Your task to perform on an android device: Go to network settings Image 0: 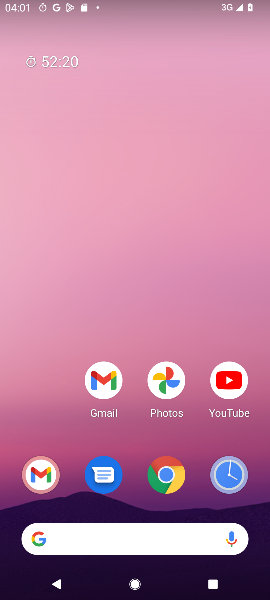
Step 0: press home button
Your task to perform on an android device: Go to network settings Image 1: 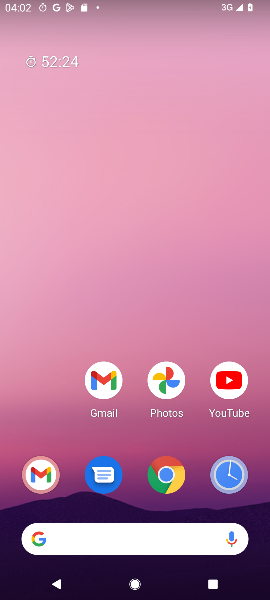
Step 1: drag from (65, 446) to (54, 198)
Your task to perform on an android device: Go to network settings Image 2: 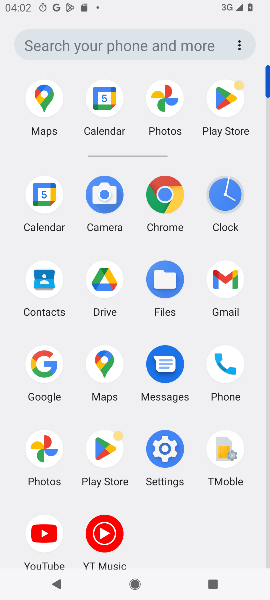
Step 2: click (166, 450)
Your task to perform on an android device: Go to network settings Image 3: 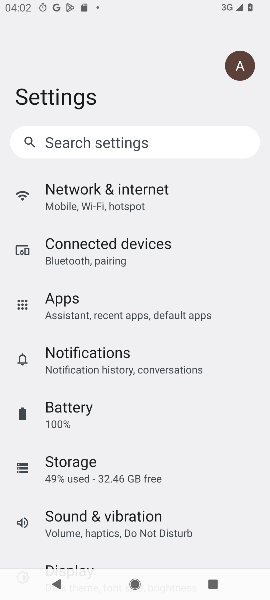
Step 3: drag from (210, 482) to (212, 391)
Your task to perform on an android device: Go to network settings Image 4: 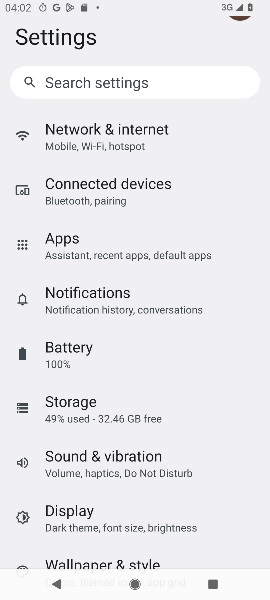
Step 4: drag from (227, 462) to (232, 351)
Your task to perform on an android device: Go to network settings Image 5: 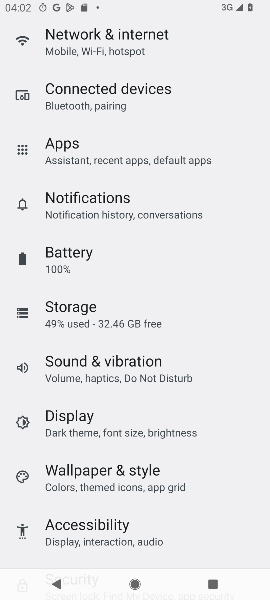
Step 5: drag from (232, 484) to (235, 383)
Your task to perform on an android device: Go to network settings Image 6: 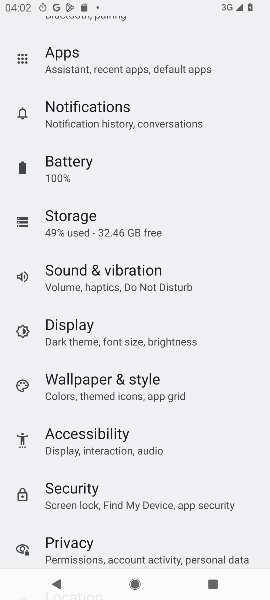
Step 6: drag from (218, 473) to (219, 363)
Your task to perform on an android device: Go to network settings Image 7: 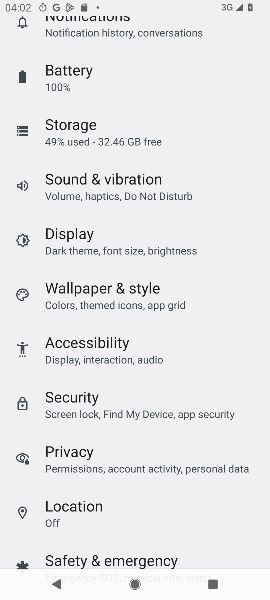
Step 7: drag from (216, 503) to (227, 377)
Your task to perform on an android device: Go to network settings Image 8: 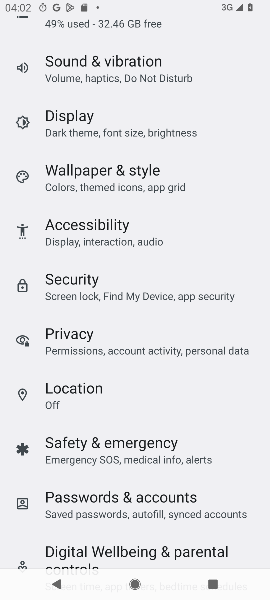
Step 8: drag from (235, 535) to (234, 402)
Your task to perform on an android device: Go to network settings Image 9: 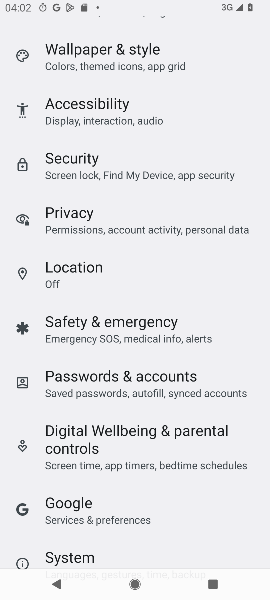
Step 9: drag from (227, 506) to (227, 352)
Your task to perform on an android device: Go to network settings Image 10: 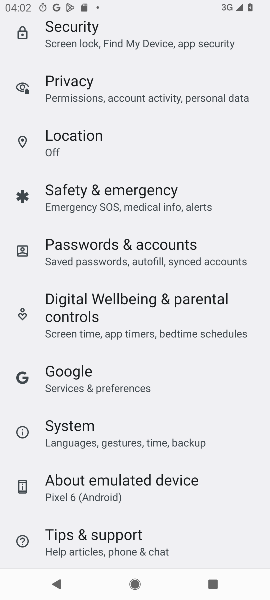
Step 10: drag from (231, 515) to (231, 382)
Your task to perform on an android device: Go to network settings Image 11: 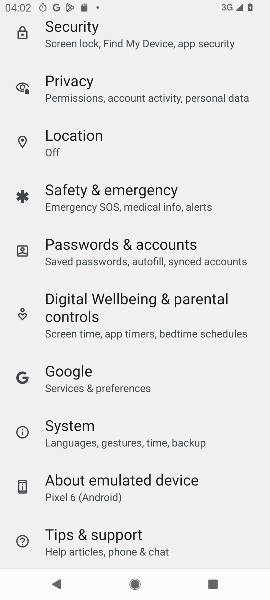
Step 11: drag from (238, 350) to (241, 449)
Your task to perform on an android device: Go to network settings Image 12: 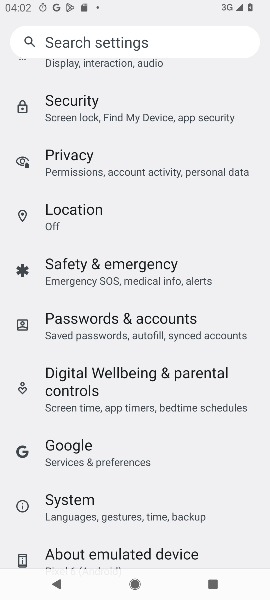
Step 12: drag from (244, 265) to (244, 401)
Your task to perform on an android device: Go to network settings Image 13: 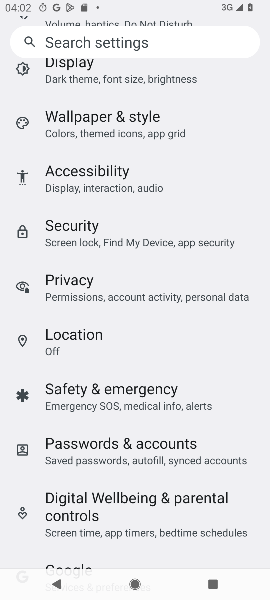
Step 13: drag from (235, 207) to (234, 335)
Your task to perform on an android device: Go to network settings Image 14: 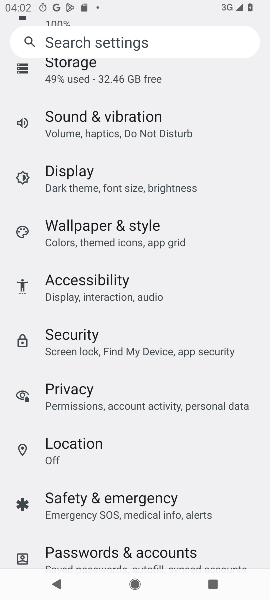
Step 14: drag from (232, 181) to (236, 299)
Your task to perform on an android device: Go to network settings Image 15: 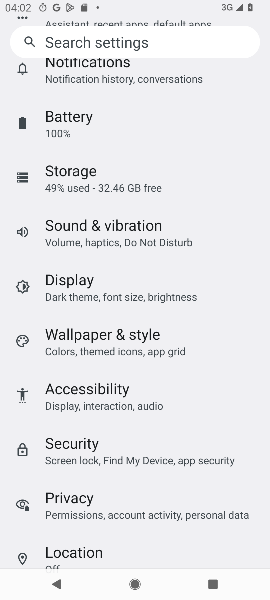
Step 15: drag from (223, 156) to (223, 311)
Your task to perform on an android device: Go to network settings Image 16: 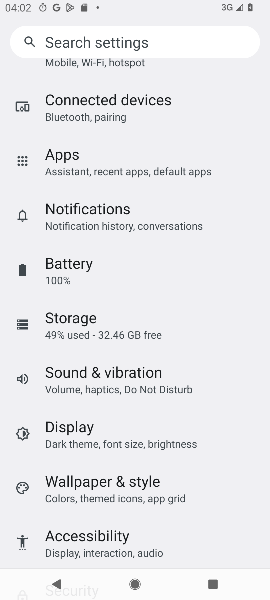
Step 16: drag from (223, 118) to (222, 343)
Your task to perform on an android device: Go to network settings Image 17: 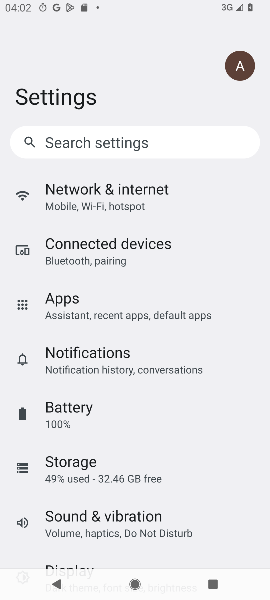
Step 17: click (165, 206)
Your task to perform on an android device: Go to network settings Image 18: 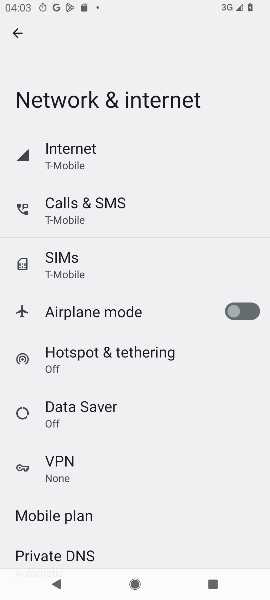
Step 18: task complete